Your task to perform on an android device: Open the Play Movies app and select the watchlist tab. Image 0: 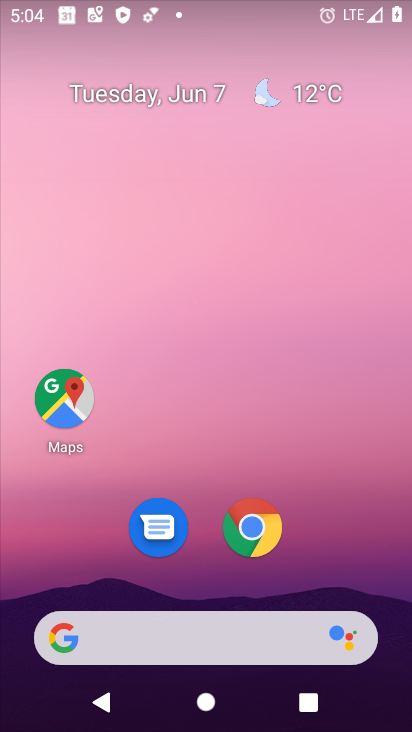
Step 0: drag from (326, 548) to (233, 3)
Your task to perform on an android device: Open the Play Movies app and select the watchlist tab. Image 1: 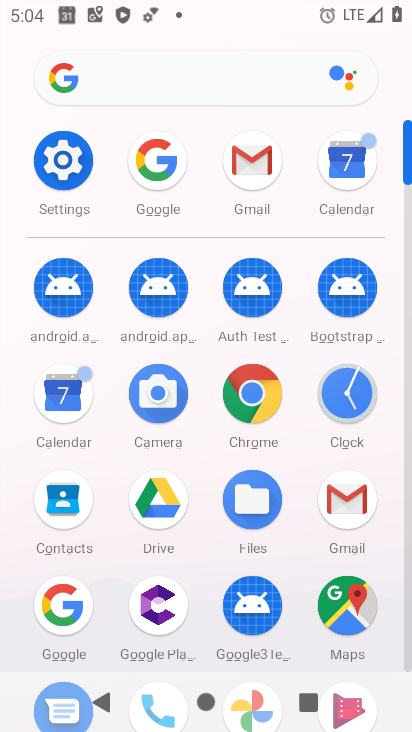
Step 1: drag from (205, 268) to (213, 2)
Your task to perform on an android device: Open the Play Movies app and select the watchlist tab. Image 2: 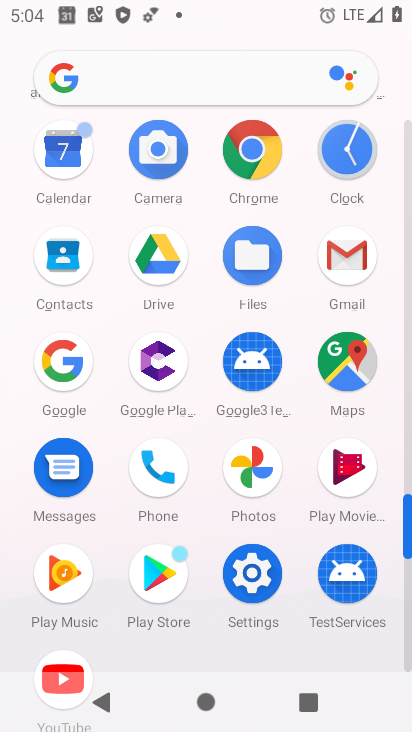
Step 2: click (348, 464)
Your task to perform on an android device: Open the Play Movies app and select the watchlist tab. Image 3: 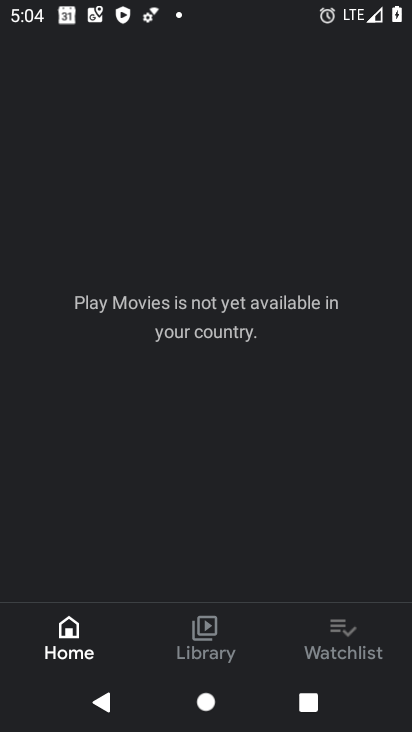
Step 3: click (339, 625)
Your task to perform on an android device: Open the Play Movies app and select the watchlist tab. Image 4: 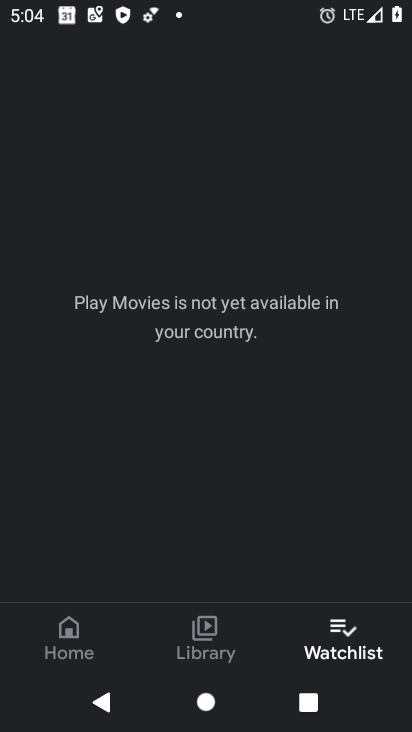
Step 4: task complete